Your task to perform on an android device: Open Google Image 0: 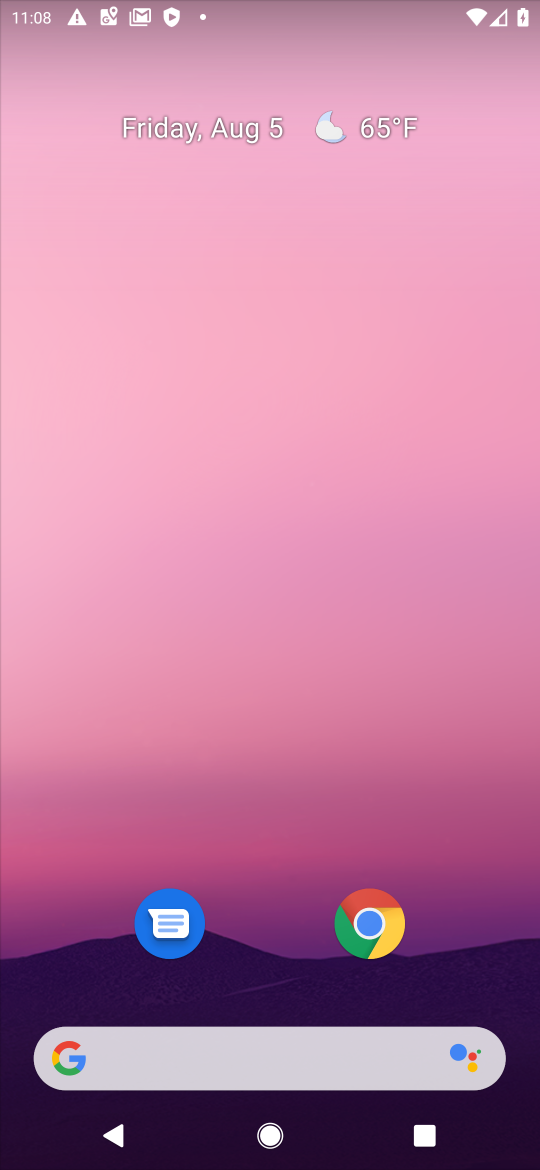
Step 0: drag from (234, 1034) to (301, 134)
Your task to perform on an android device: Open Google Image 1: 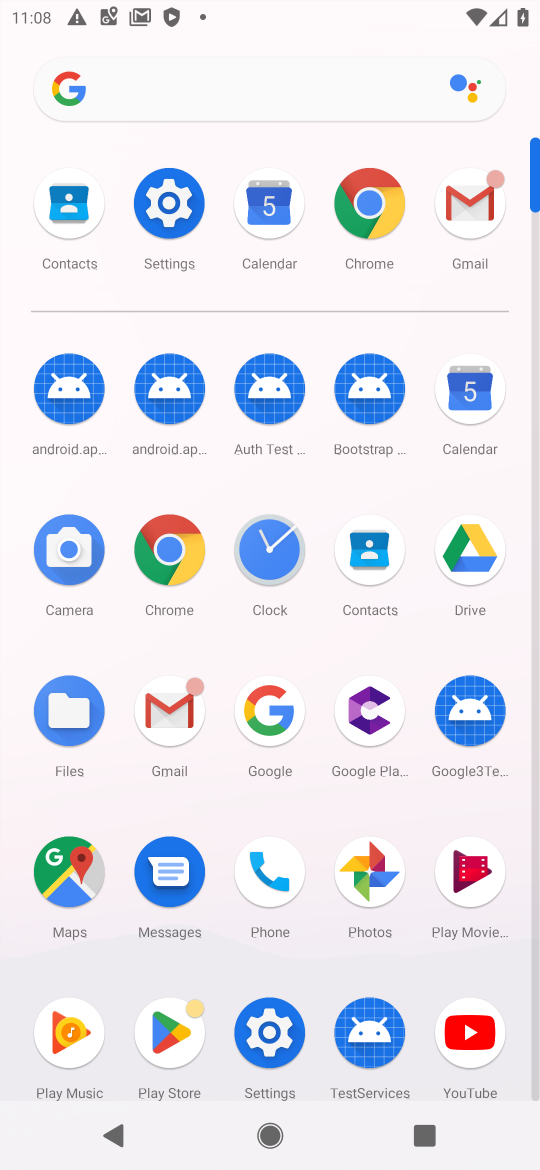
Step 1: click (281, 713)
Your task to perform on an android device: Open Google Image 2: 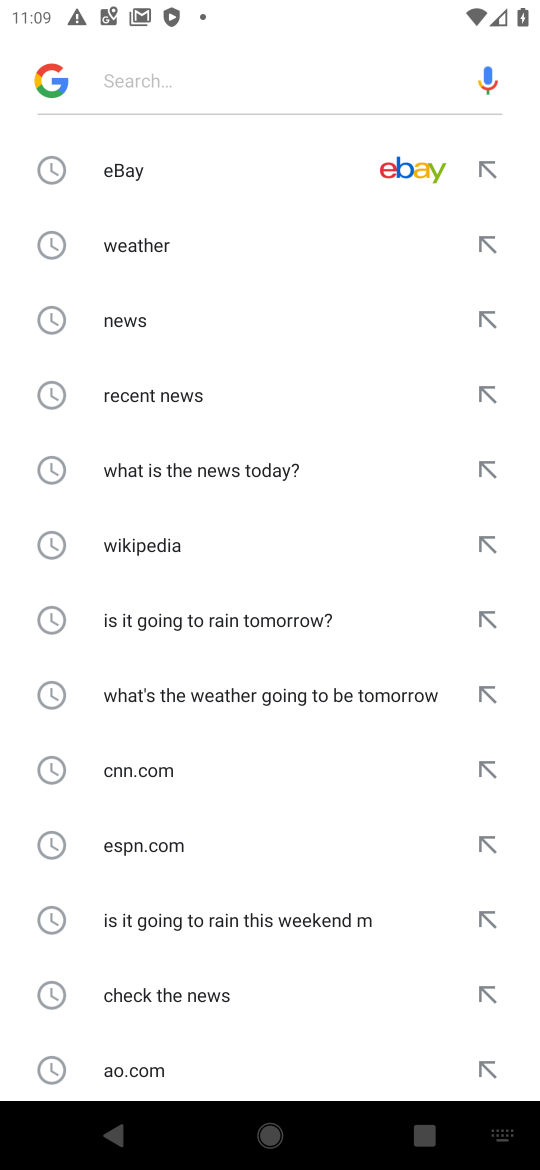
Step 2: task complete